Your task to perform on an android device: Find coffee shops on Maps Image 0: 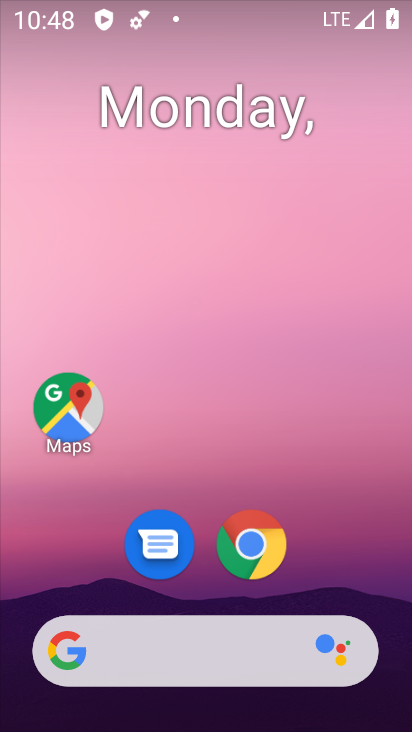
Step 0: click (66, 400)
Your task to perform on an android device: Find coffee shops on Maps Image 1: 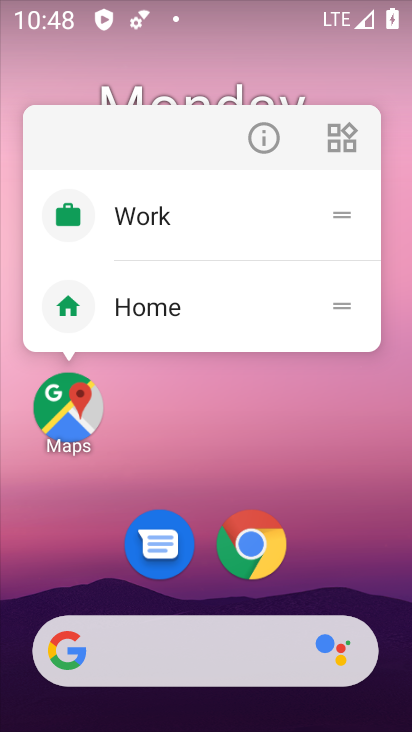
Step 1: click (110, 389)
Your task to perform on an android device: Find coffee shops on Maps Image 2: 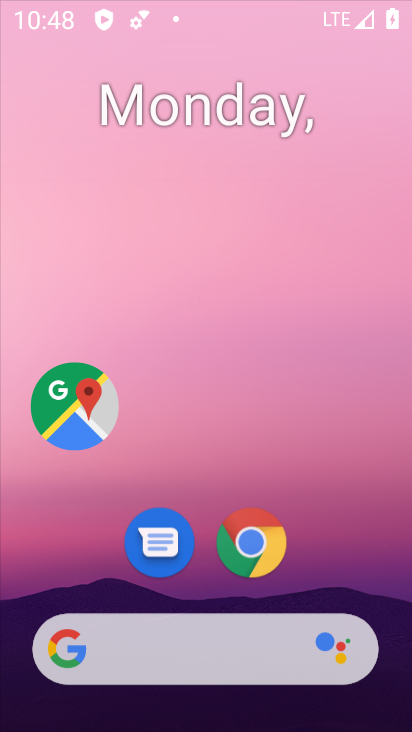
Step 2: click (58, 396)
Your task to perform on an android device: Find coffee shops on Maps Image 3: 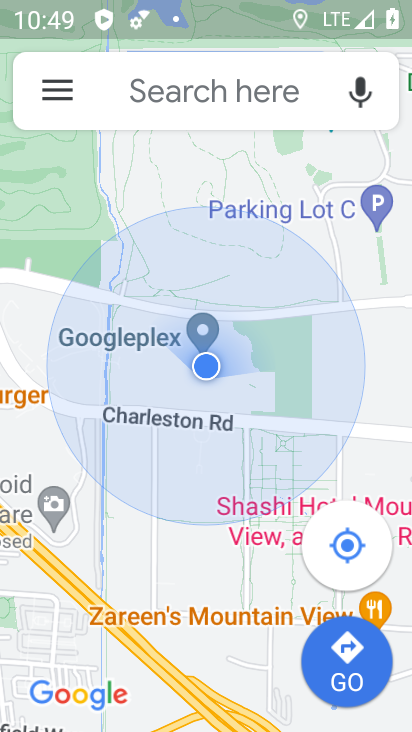
Step 3: click (143, 87)
Your task to perform on an android device: Find coffee shops on Maps Image 4: 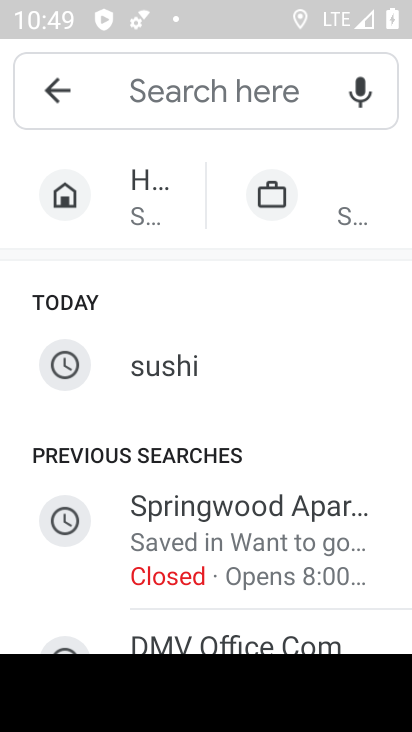
Step 4: type "coffee shops"
Your task to perform on an android device: Find coffee shops on Maps Image 5: 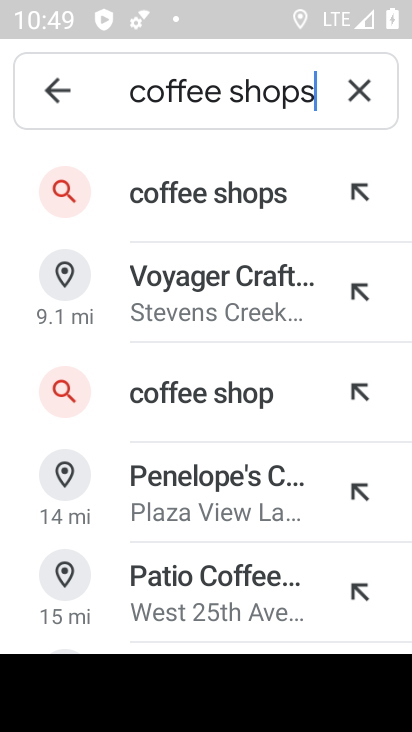
Step 5: click (228, 196)
Your task to perform on an android device: Find coffee shops on Maps Image 6: 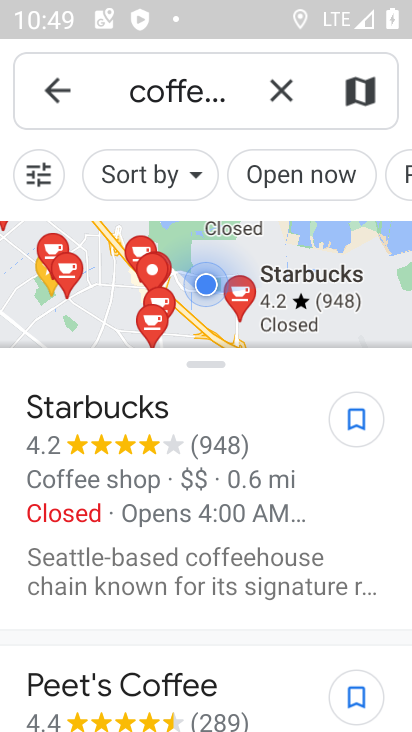
Step 6: task complete